Your task to perform on an android device: move a message to another label in the gmail app Image 0: 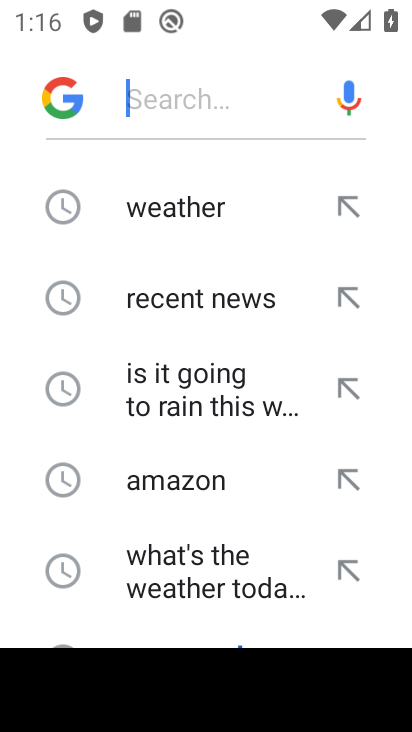
Step 0: press home button
Your task to perform on an android device: move a message to another label in the gmail app Image 1: 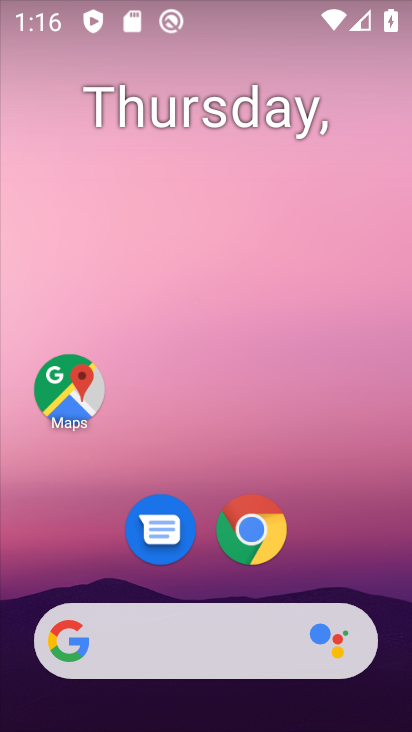
Step 1: drag from (215, 723) to (214, 173)
Your task to perform on an android device: move a message to another label in the gmail app Image 2: 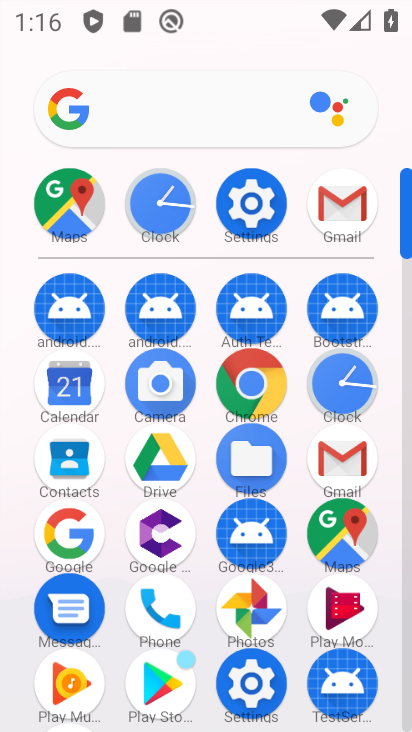
Step 2: click (345, 211)
Your task to perform on an android device: move a message to another label in the gmail app Image 3: 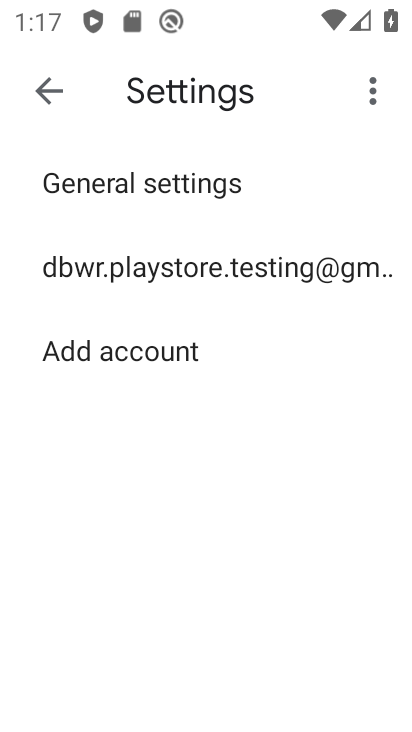
Step 3: click (47, 85)
Your task to perform on an android device: move a message to another label in the gmail app Image 4: 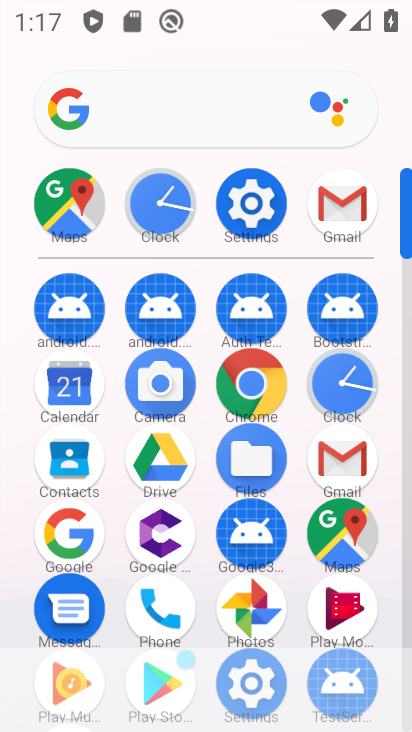
Step 4: click (325, 207)
Your task to perform on an android device: move a message to another label in the gmail app Image 5: 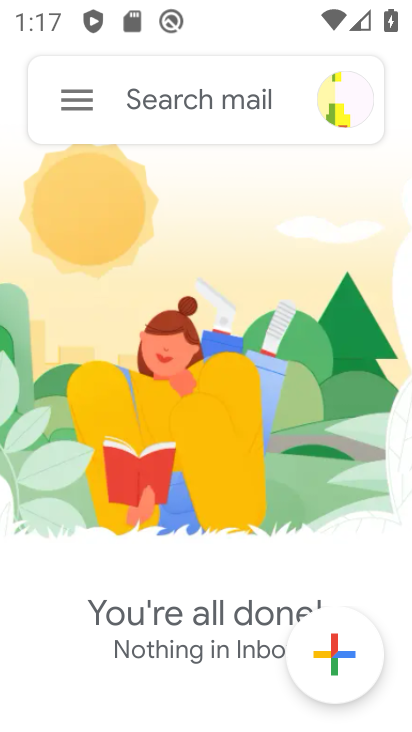
Step 5: task complete